Your task to perform on an android device: Open display settings Image 0: 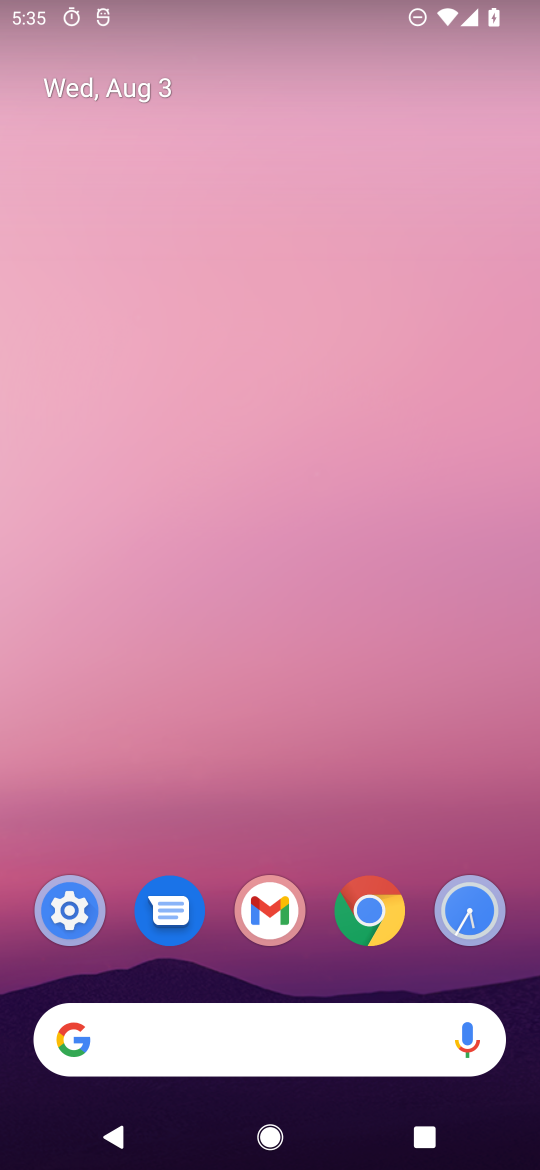
Step 0: drag from (60, 995) to (404, 249)
Your task to perform on an android device: Open display settings Image 1: 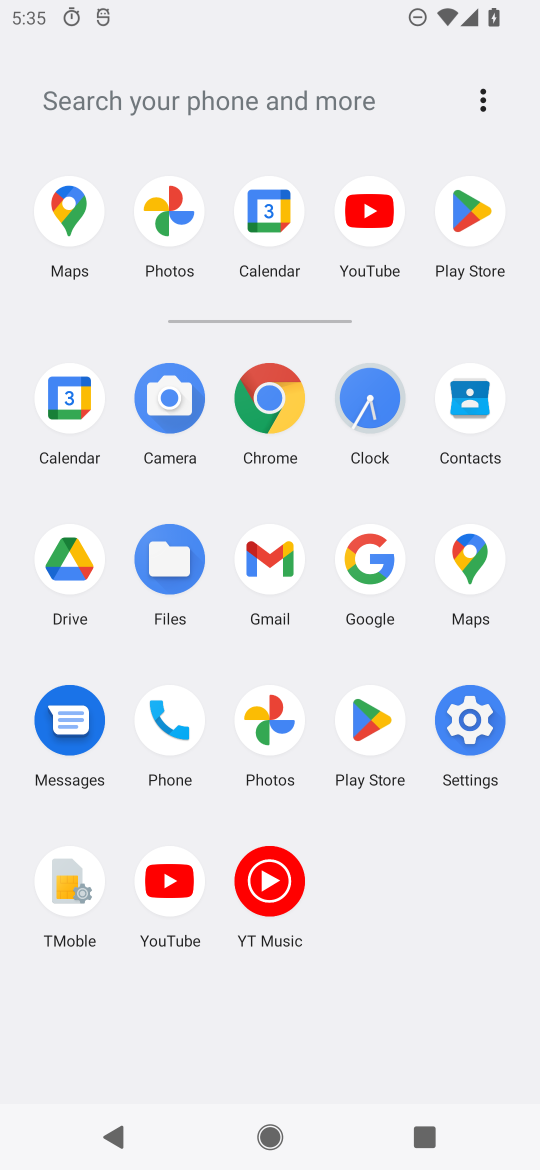
Step 1: click (466, 741)
Your task to perform on an android device: Open display settings Image 2: 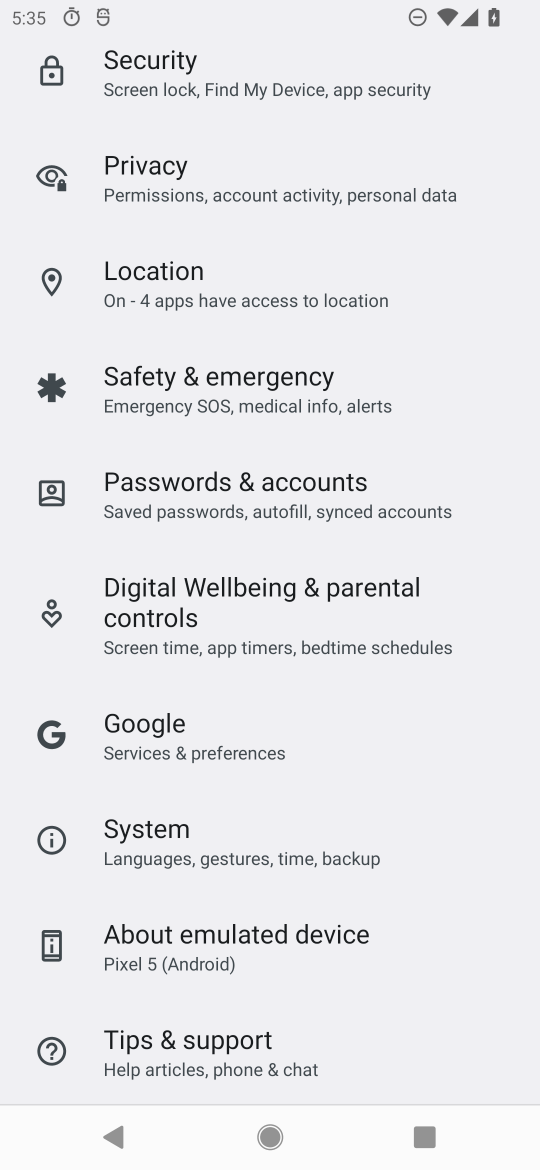
Step 2: drag from (174, 769) to (174, 142)
Your task to perform on an android device: Open display settings Image 3: 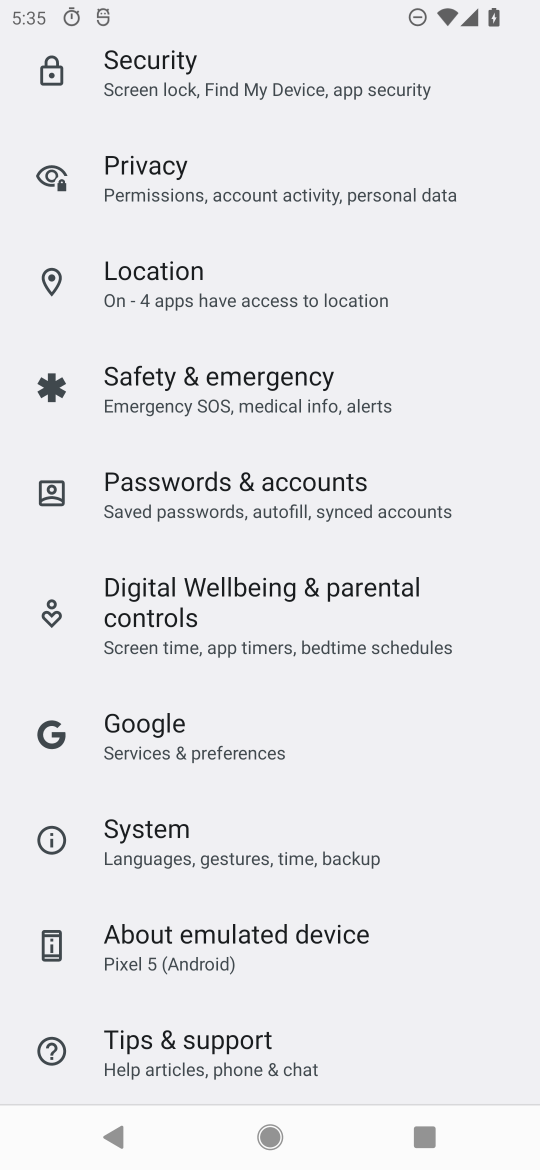
Step 3: drag from (357, 278) to (350, 823)
Your task to perform on an android device: Open display settings Image 4: 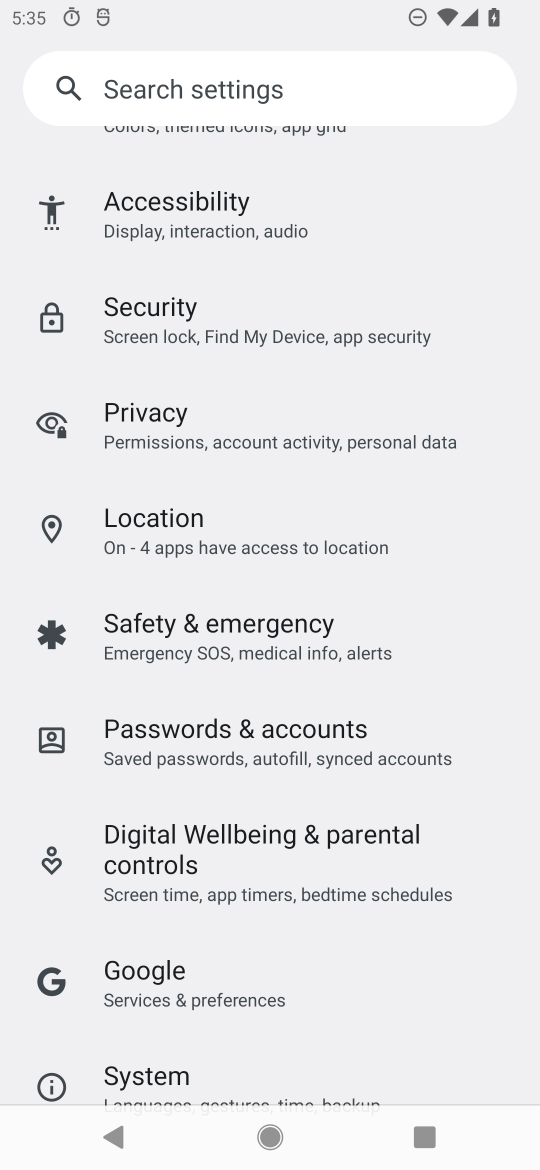
Step 4: drag from (333, 170) to (304, 693)
Your task to perform on an android device: Open display settings Image 5: 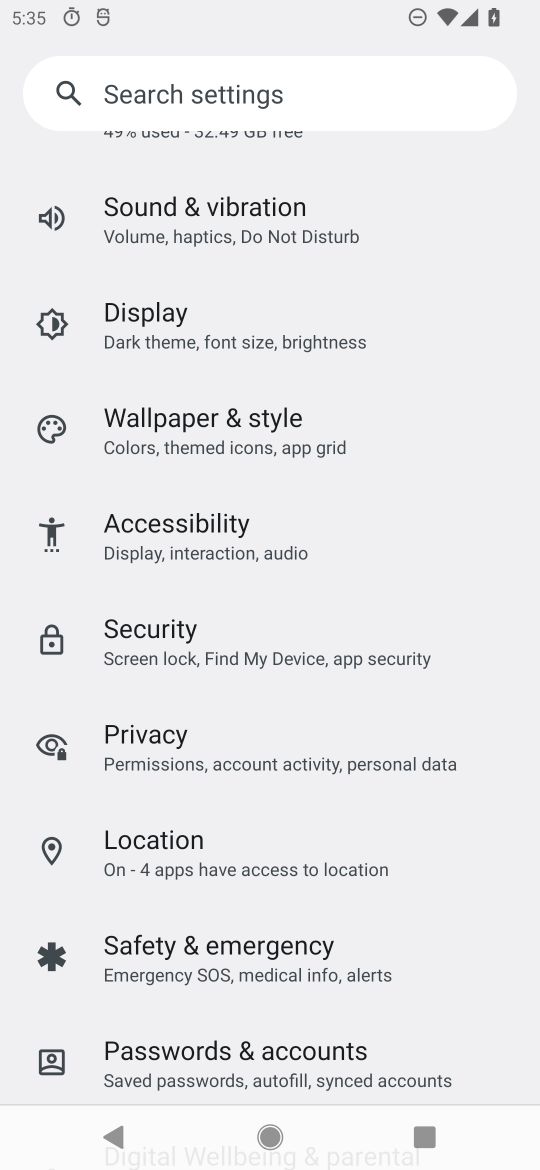
Step 5: click (185, 313)
Your task to perform on an android device: Open display settings Image 6: 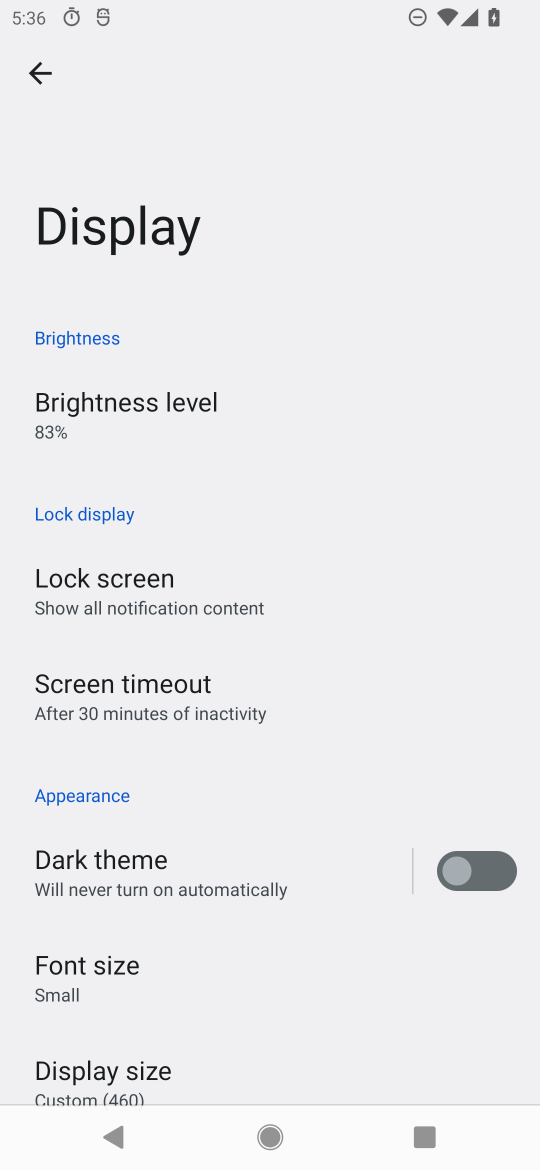
Step 6: task complete